Your task to perform on an android device: Open calendar and show me the fourth week of next month Image 0: 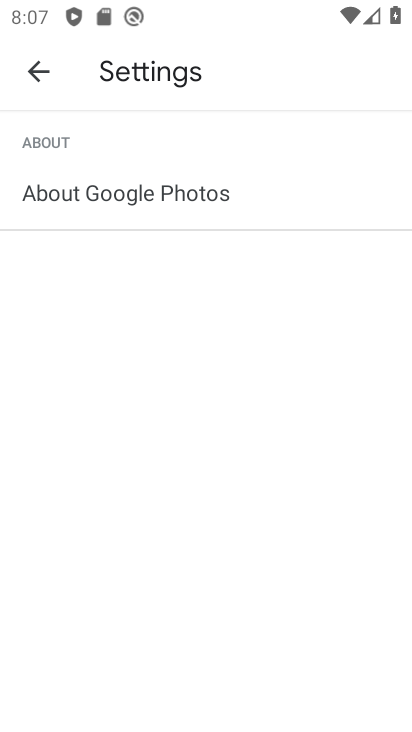
Step 0: press home button
Your task to perform on an android device: Open calendar and show me the fourth week of next month Image 1: 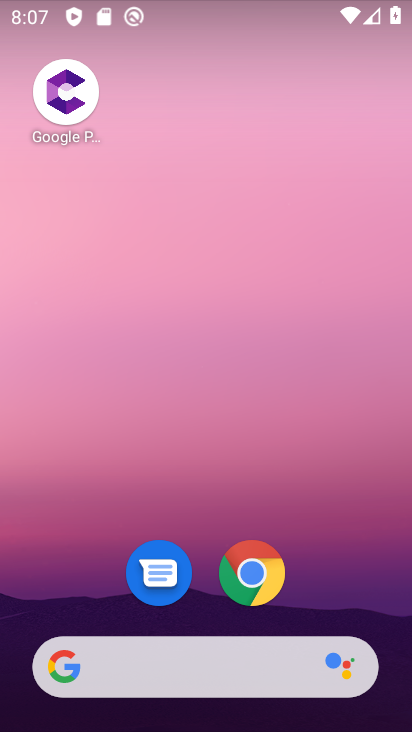
Step 1: drag from (35, 423) to (395, 435)
Your task to perform on an android device: Open calendar and show me the fourth week of next month Image 2: 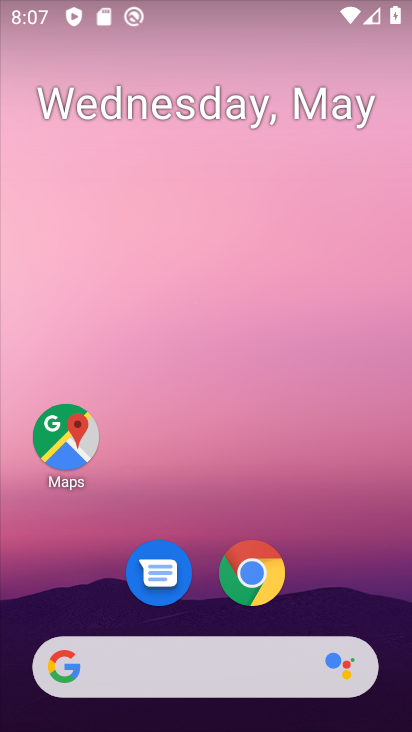
Step 2: drag from (338, 582) to (350, 117)
Your task to perform on an android device: Open calendar and show me the fourth week of next month Image 3: 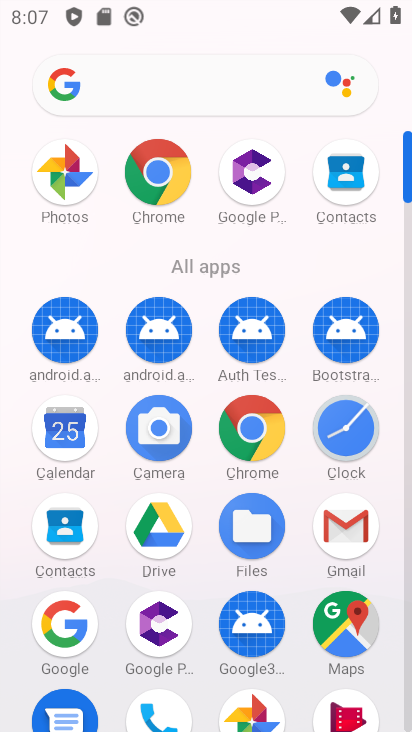
Step 3: click (52, 420)
Your task to perform on an android device: Open calendar and show me the fourth week of next month Image 4: 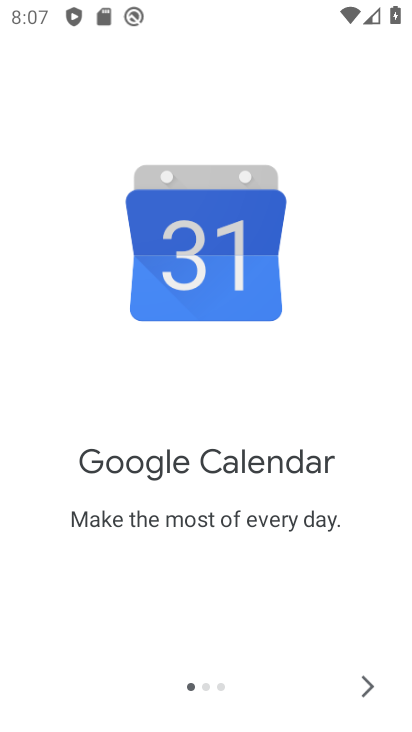
Step 4: click (361, 692)
Your task to perform on an android device: Open calendar and show me the fourth week of next month Image 5: 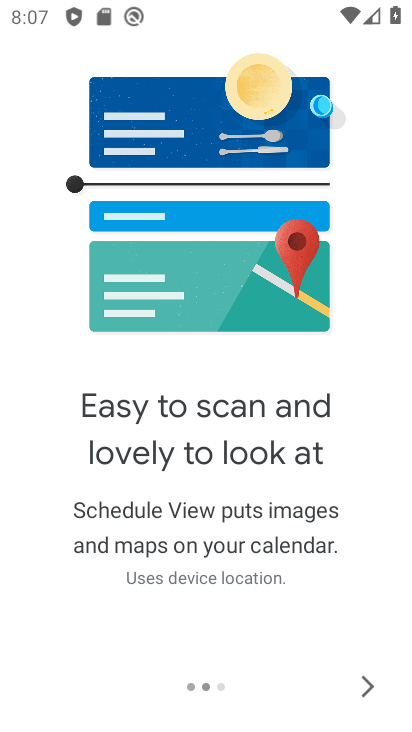
Step 5: click (361, 692)
Your task to perform on an android device: Open calendar and show me the fourth week of next month Image 6: 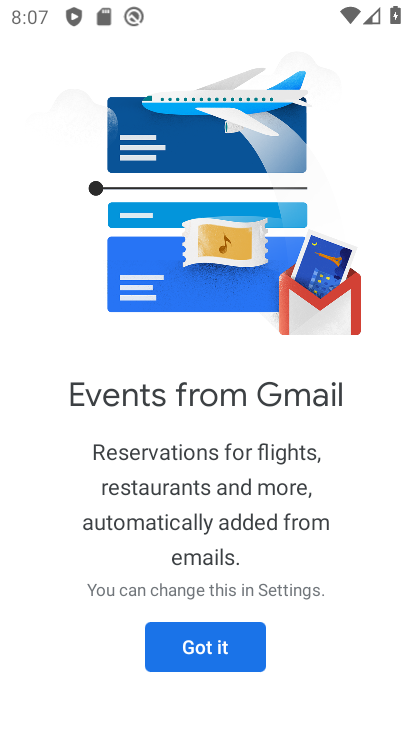
Step 6: click (215, 634)
Your task to perform on an android device: Open calendar and show me the fourth week of next month Image 7: 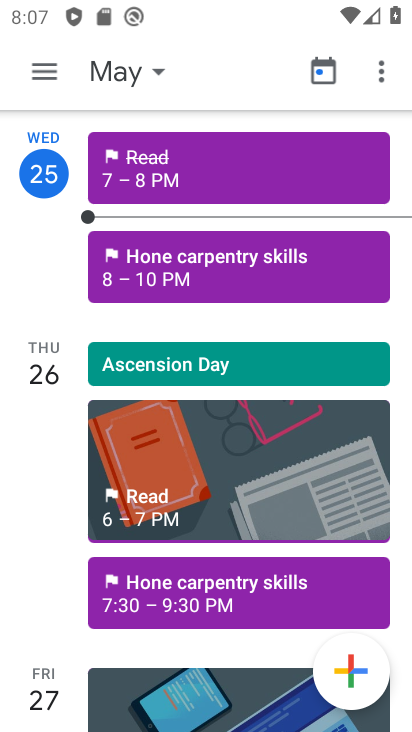
Step 7: click (144, 83)
Your task to perform on an android device: Open calendar and show me the fourth week of next month Image 8: 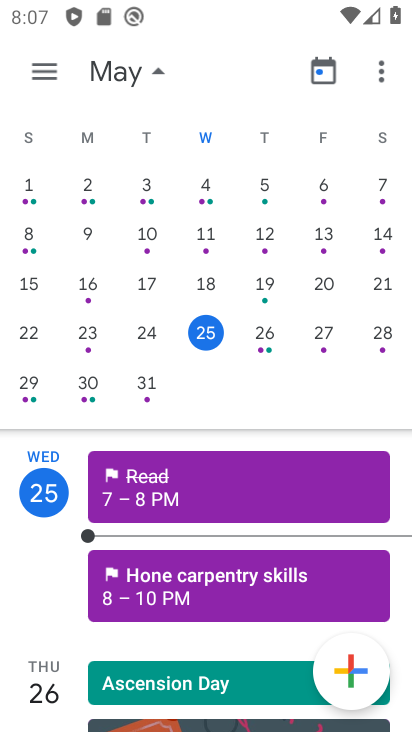
Step 8: drag from (383, 279) to (6, 221)
Your task to perform on an android device: Open calendar and show me the fourth week of next month Image 9: 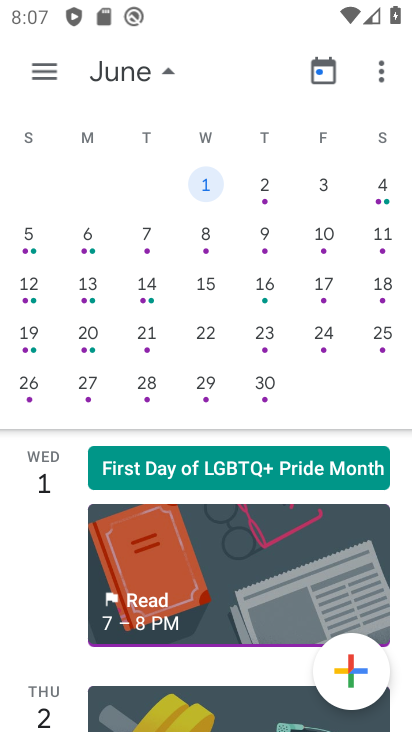
Step 9: click (47, 89)
Your task to perform on an android device: Open calendar and show me the fourth week of next month Image 10: 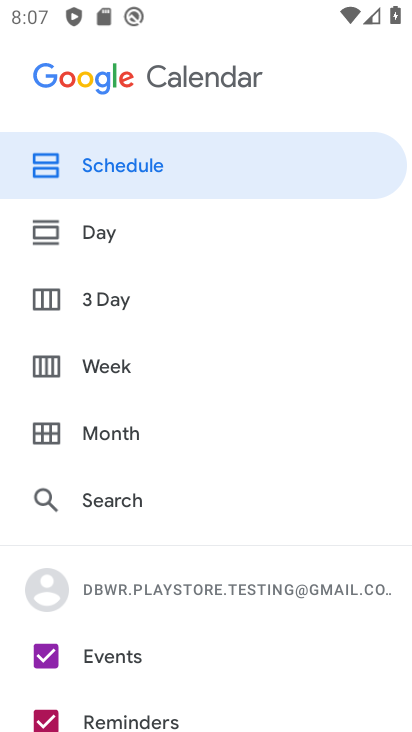
Step 10: click (108, 370)
Your task to perform on an android device: Open calendar and show me the fourth week of next month Image 11: 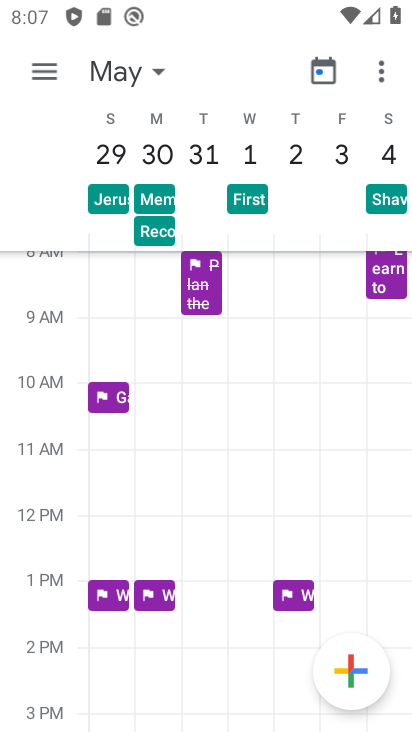
Step 11: task complete